Your task to perform on an android device: What is the news today? Image 0: 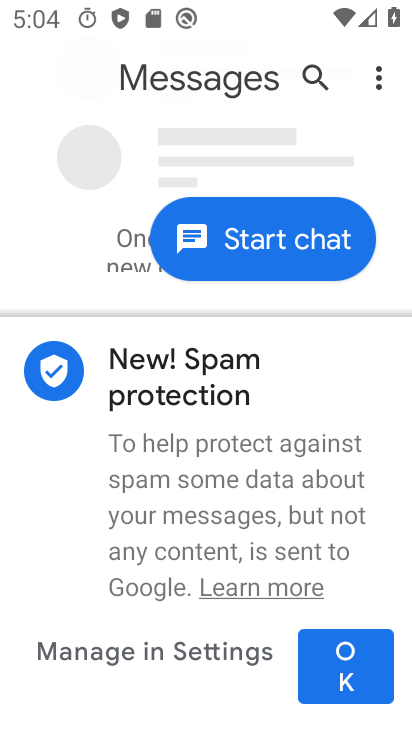
Step 0: press home button
Your task to perform on an android device: What is the news today? Image 1: 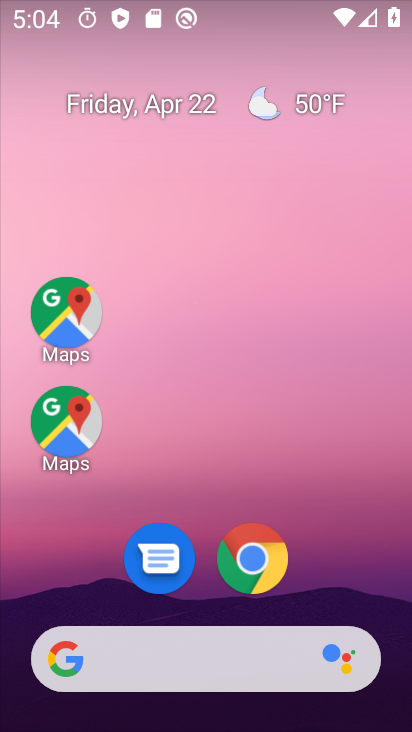
Step 1: drag from (323, 599) to (281, 192)
Your task to perform on an android device: What is the news today? Image 2: 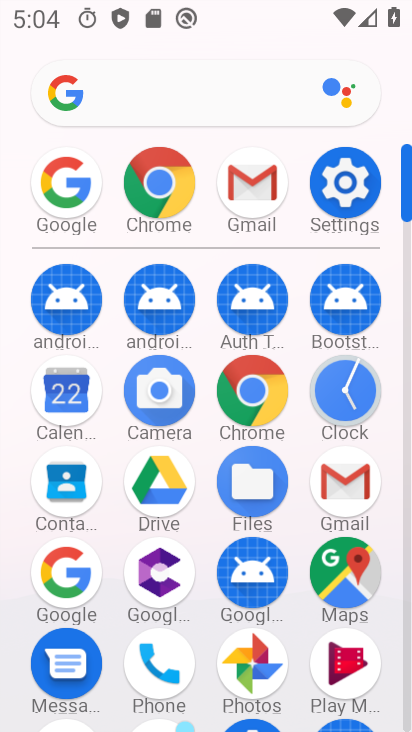
Step 2: click (63, 195)
Your task to perform on an android device: What is the news today? Image 3: 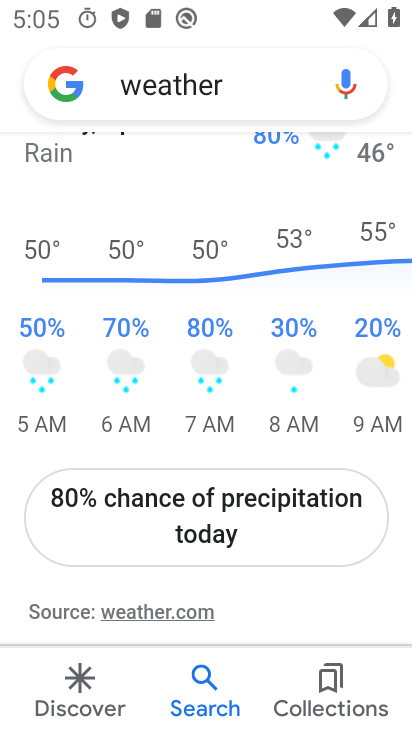
Step 3: click (232, 94)
Your task to perform on an android device: What is the news today? Image 4: 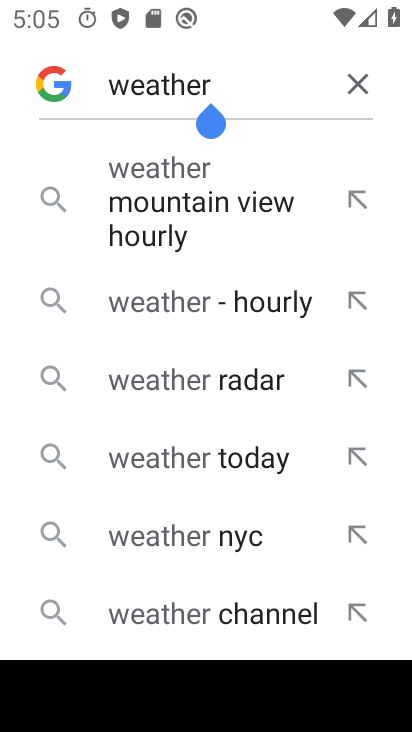
Step 4: click (348, 93)
Your task to perform on an android device: What is the news today? Image 5: 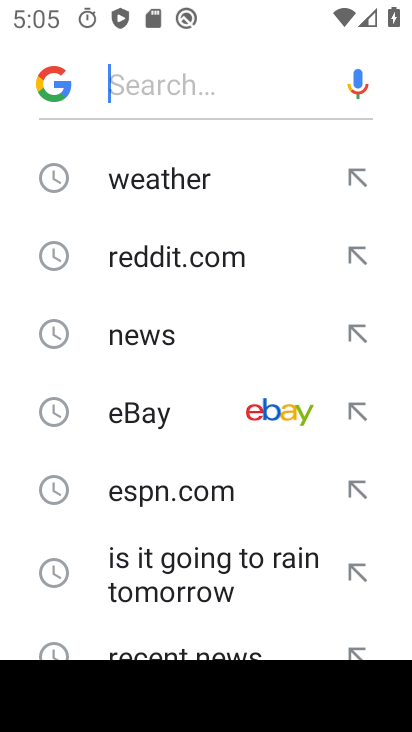
Step 5: click (158, 332)
Your task to perform on an android device: What is the news today? Image 6: 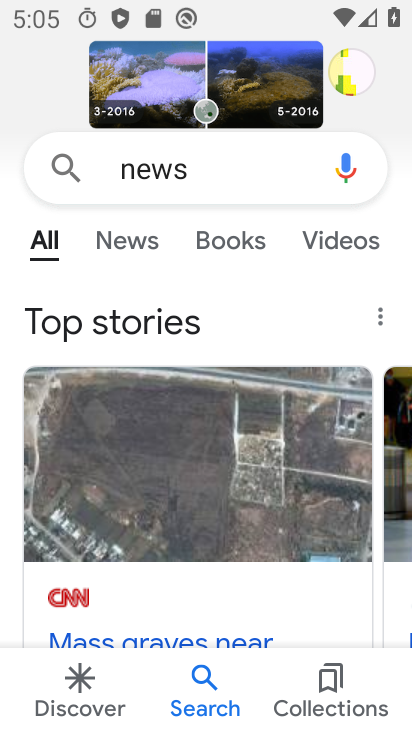
Step 6: task complete